Your task to perform on an android device: Open Chrome and go to the settings page Image 0: 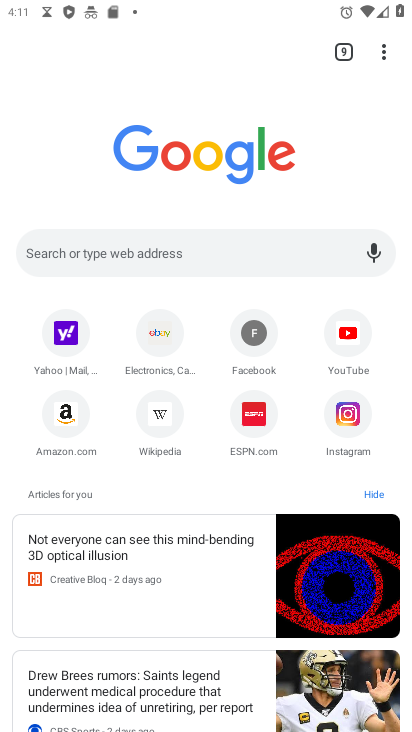
Step 0: drag from (386, 57) to (206, 438)
Your task to perform on an android device: Open Chrome and go to the settings page Image 1: 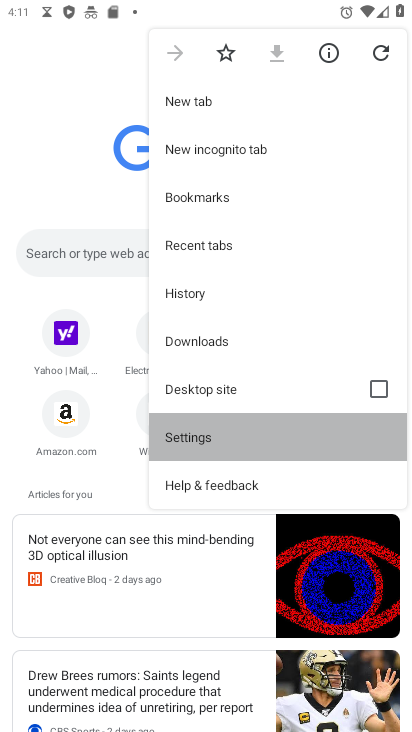
Step 1: click (206, 438)
Your task to perform on an android device: Open Chrome and go to the settings page Image 2: 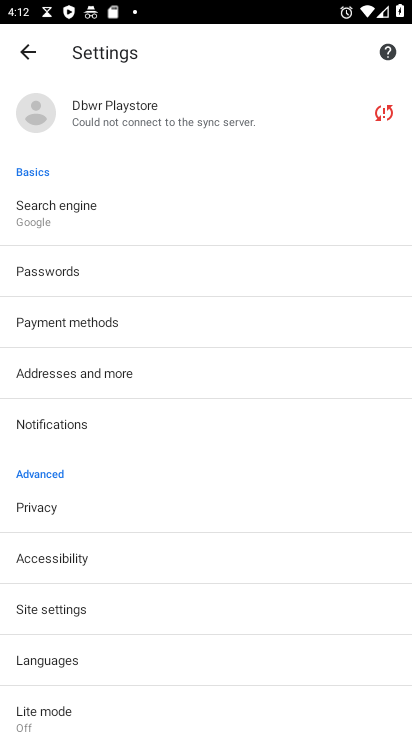
Step 2: drag from (115, 498) to (64, 152)
Your task to perform on an android device: Open Chrome and go to the settings page Image 3: 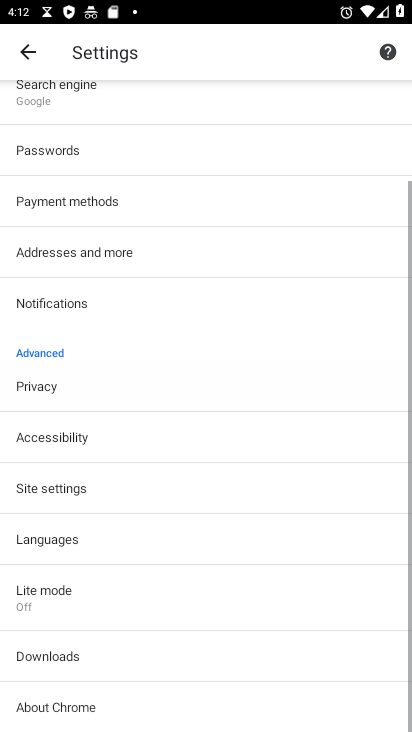
Step 3: drag from (142, 491) to (69, 145)
Your task to perform on an android device: Open Chrome and go to the settings page Image 4: 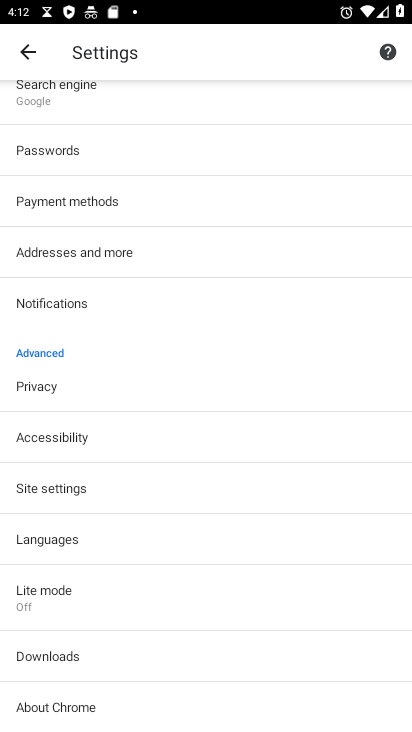
Step 4: drag from (78, 275) to (123, 592)
Your task to perform on an android device: Open Chrome and go to the settings page Image 5: 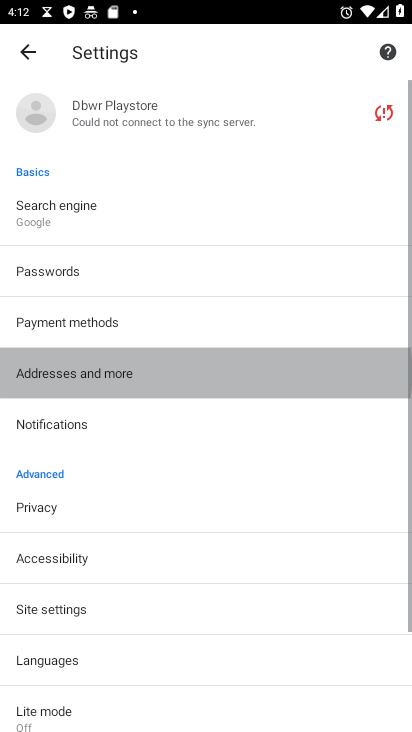
Step 5: drag from (118, 290) to (177, 627)
Your task to perform on an android device: Open Chrome and go to the settings page Image 6: 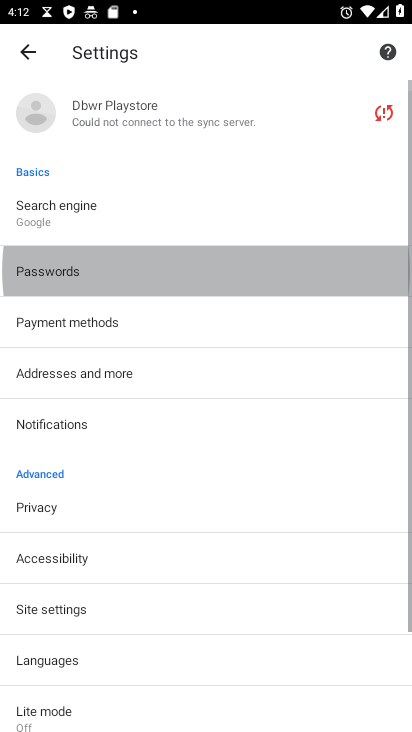
Step 6: drag from (149, 251) to (220, 662)
Your task to perform on an android device: Open Chrome and go to the settings page Image 7: 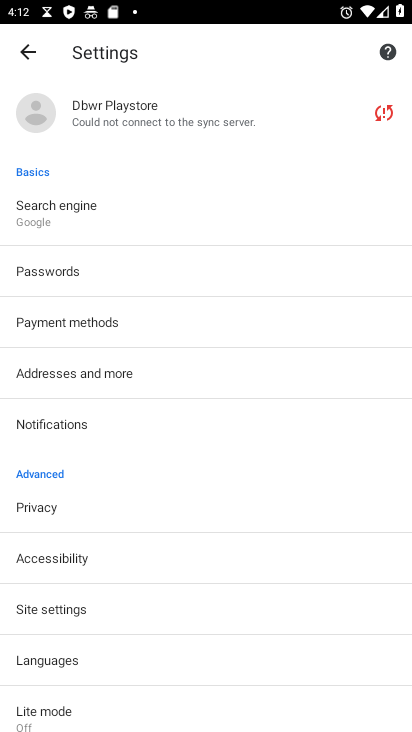
Step 7: drag from (129, 514) to (103, 162)
Your task to perform on an android device: Open Chrome and go to the settings page Image 8: 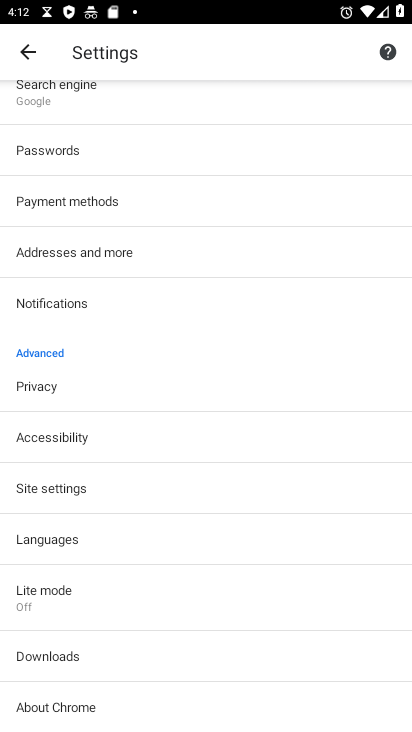
Step 8: click (46, 483)
Your task to perform on an android device: Open Chrome and go to the settings page Image 9: 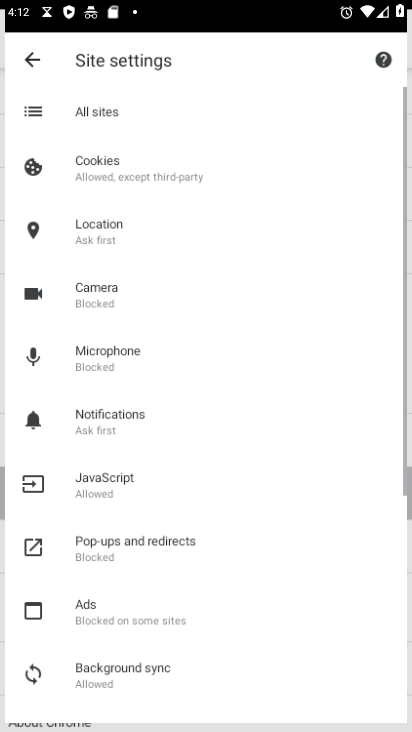
Step 9: click (46, 483)
Your task to perform on an android device: Open Chrome and go to the settings page Image 10: 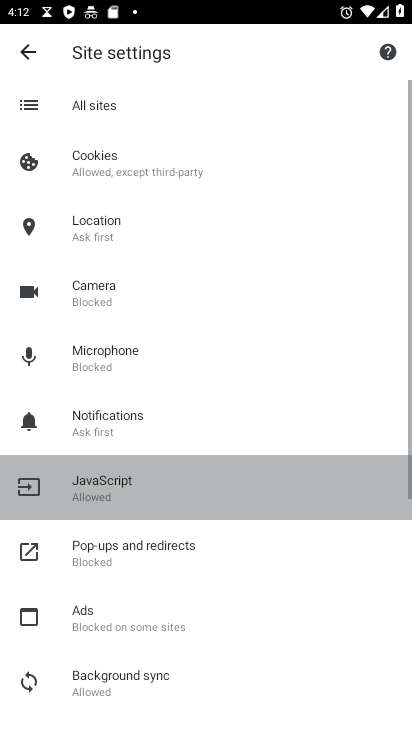
Step 10: click (46, 483)
Your task to perform on an android device: Open Chrome and go to the settings page Image 11: 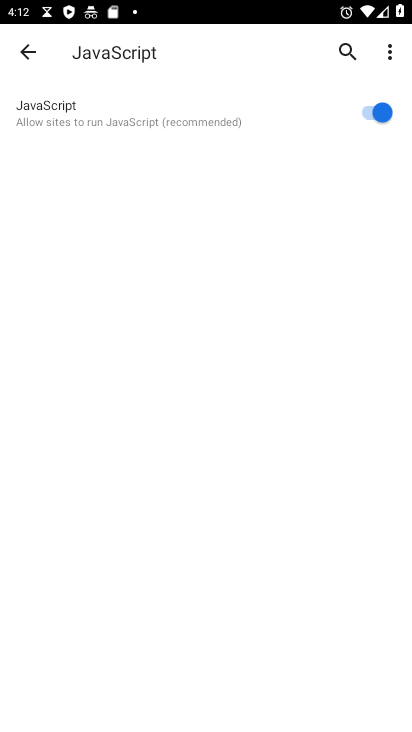
Step 11: click (24, 57)
Your task to perform on an android device: Open Chrome and go to the settings page Image 12: 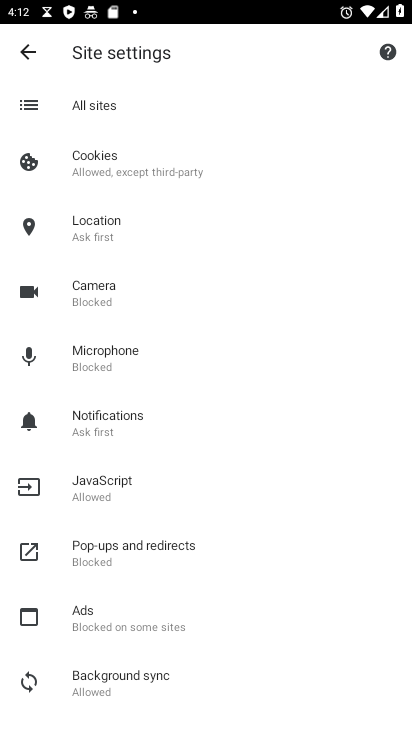
Step 12: task complete